Your task to perform on an android device: Toggle the flashlight Image 0: 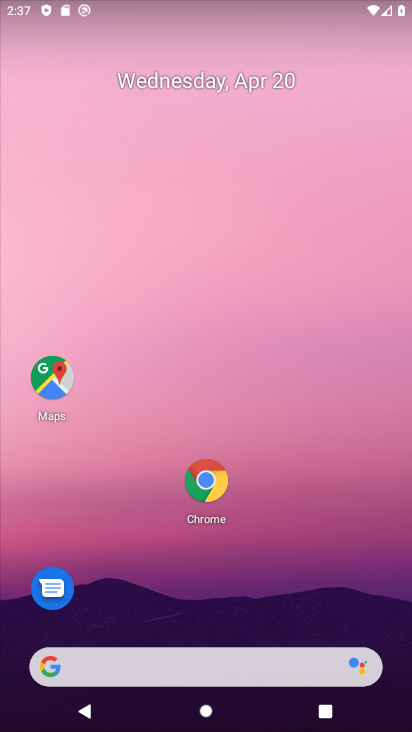
Step 0: click (222, 232)
Your task to perform on an android device: Toggle the flashlight Image 1: 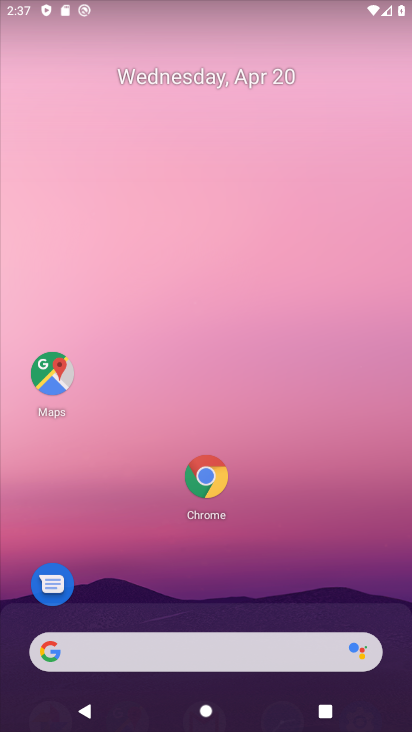
Step 1: task complete